Your task to perform on an android device: open a bookmark in the chrome app Image 0: 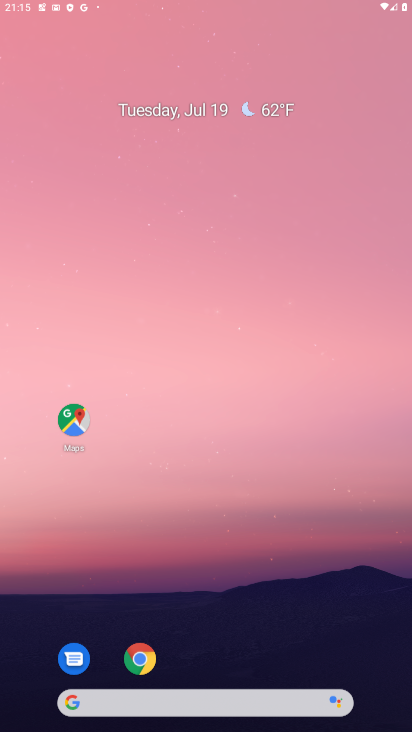
Step 0: press home button
Your task to perform on an android device: open a bookmark in the chrome app Image 1: 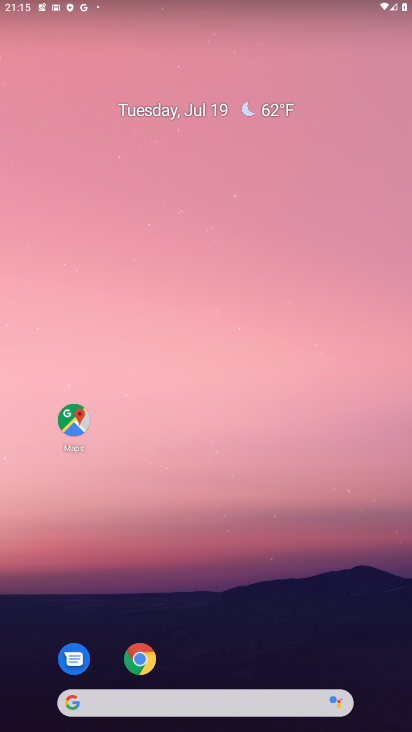
Step 1: click (132, 664)
Your task to perform on an android device: open a bookmark in the chrome app Image 2: 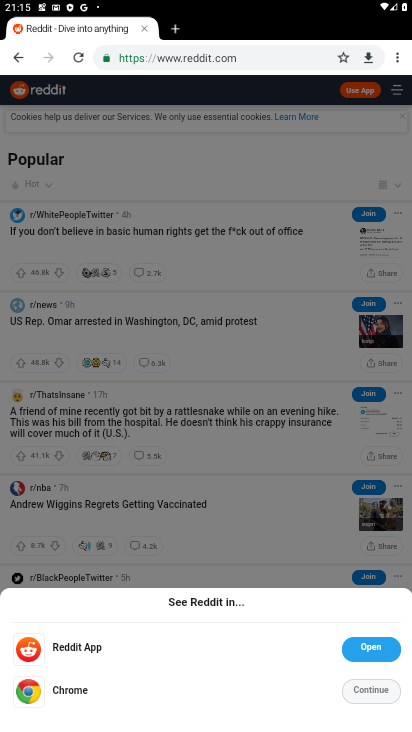
Step 2: click (400, 52)
Your task to perform on an android device: open a bookmark in the chrome app Image 3: 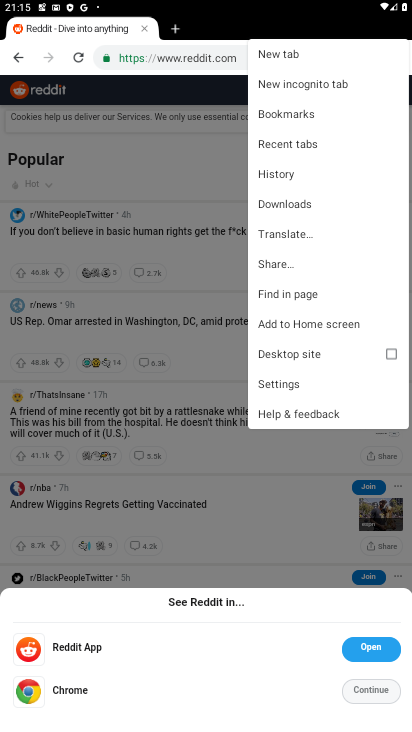
Step 3: click (315, 117)
Your task to perform on an android device: open a bookmark in the chrome app Image 4: 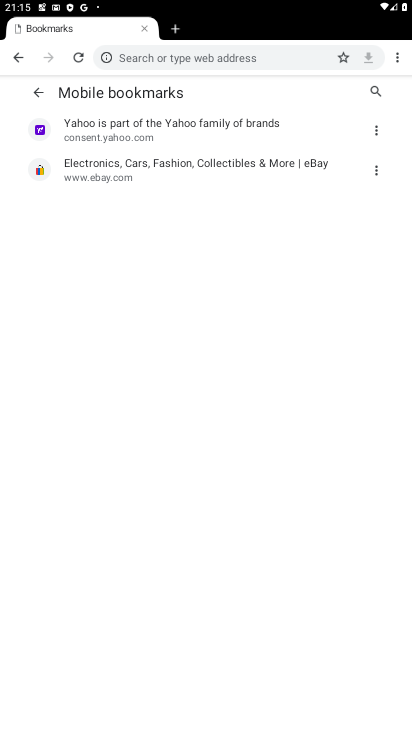
Step 4: task complete